Your task to perform on an android device: turn notification dots off Image 0: 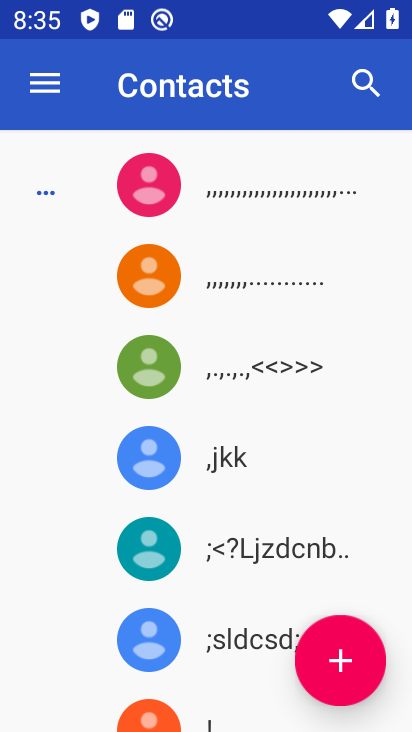
Step 0: press home button
Your task to perform on an android device: turn notification dots off Image 1: 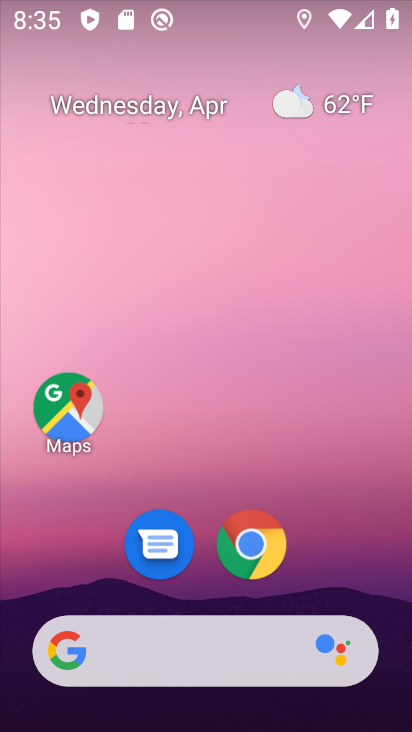
Step 1: drag from (315, 554) to (121, 153)
Your task to perform on an android device: turn notification dots off Image 2: 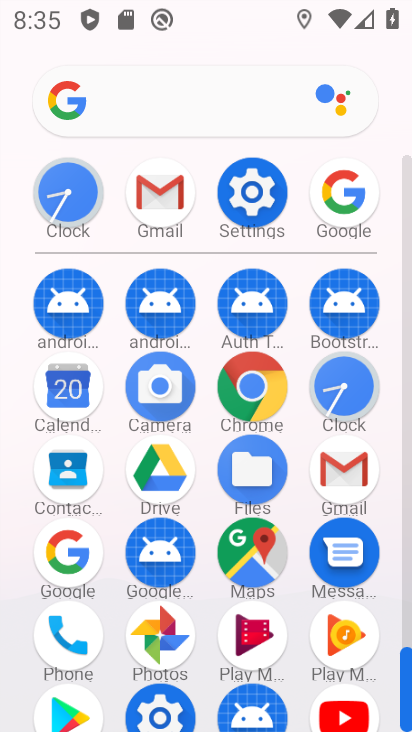
Step 2: click (241, 190)
Your task to perform on an android device: turn notification dots off Image 3: 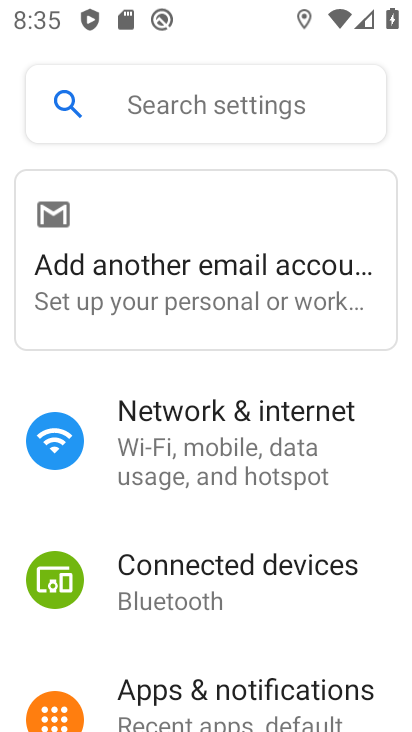
Step 3: click (169, 702)
Your task to perform on an android device: turn notification dots off Image 4: 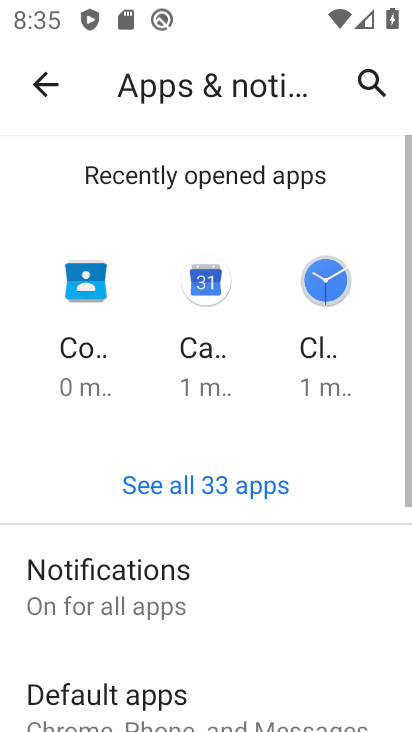
Step 4: click (134, 597)
Your task to perform on an android device: turn notification dots off Image 5: 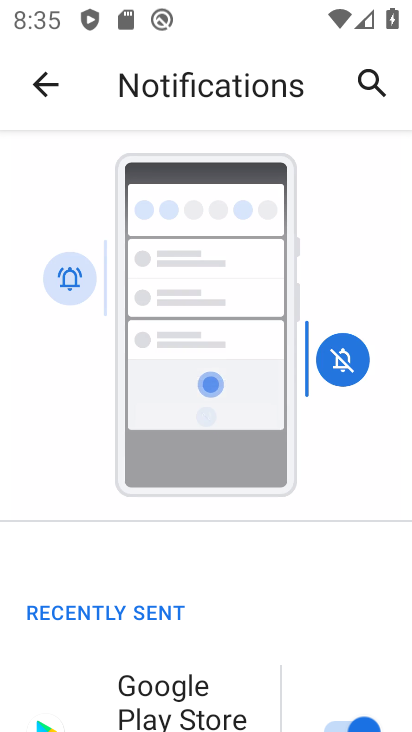
Step 5: drag from (342, 662) to (263, 221)
Your task to perform on an android device: turn notification dots off Image 6: 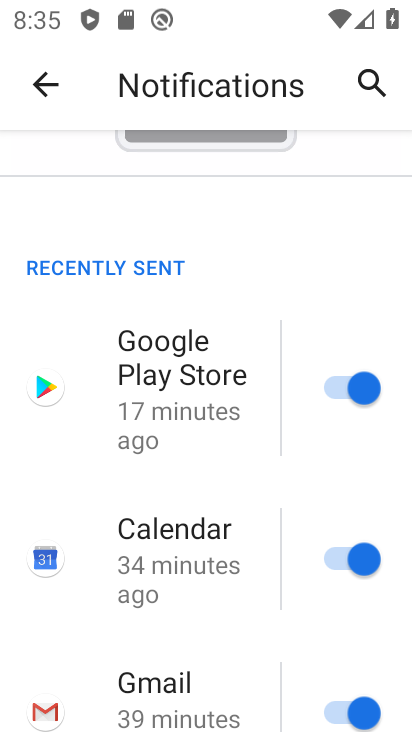
Step 6: drag from (268, 663) to (235, 216)
Your task to perform on an android device: turn notification dots off Image 7: 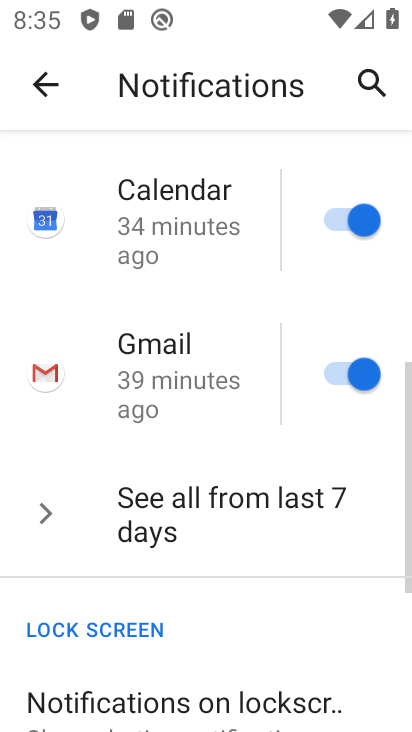
Step 7: drag from (205, 638) to (183, 254)
Your task to perform on an android device: turn notification dots off Image 8: 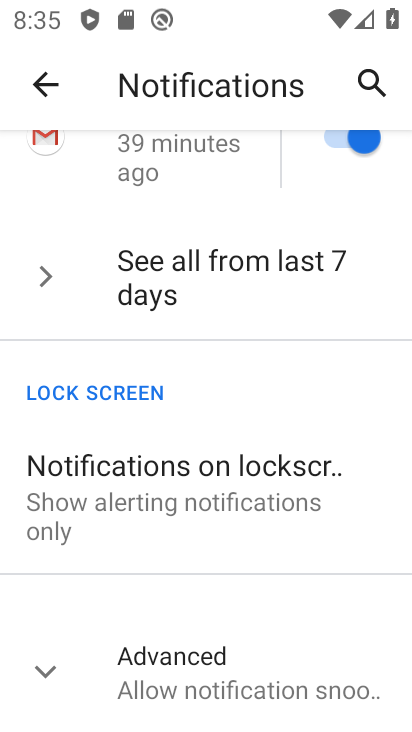
Step 8: click (212, 689)
Your task to perform on an android device: turn notification dots off Image 9: 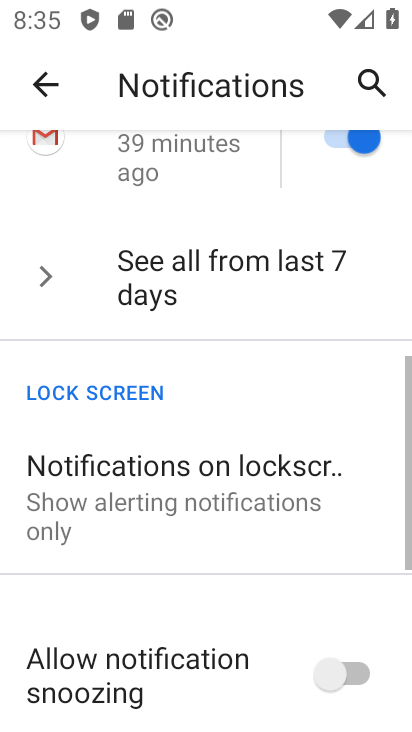
Step 9: task complete